Your task to perform on an android device: toggle priority inbox in the gmail app Image 0: 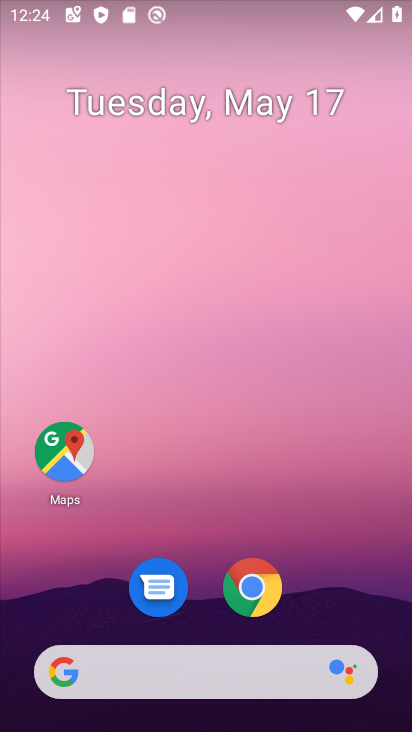
Step 0: drag from (211, 641) to (142, 8)
Your task to perform on an android device: toggle priority inbox in the gmail app Image 1: 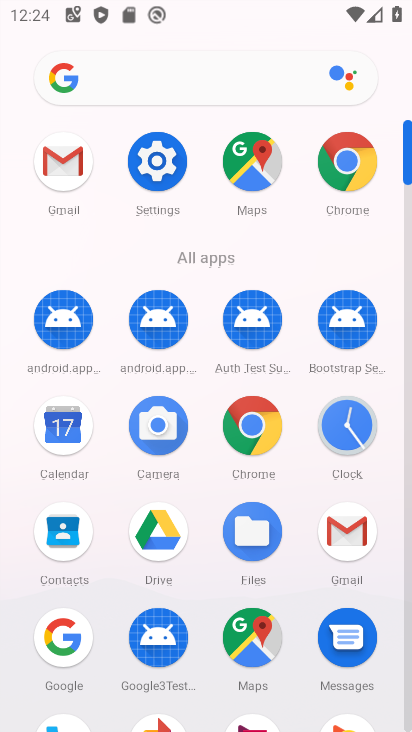
Step 1: click (331, 519)
Your task to perform on an android device: toggle priority inbox in the gmail app Image 2: 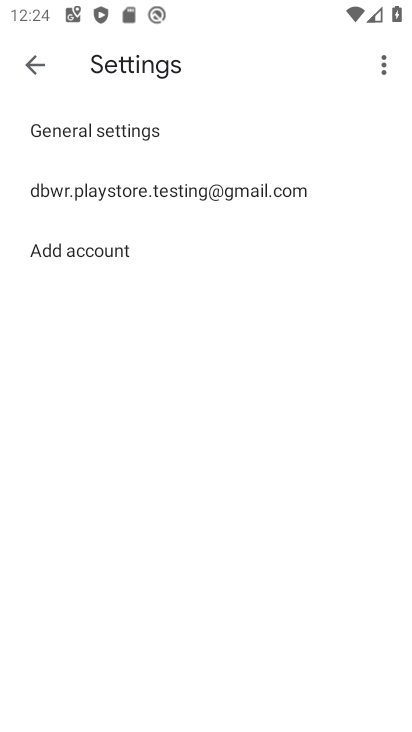
Step 2: click (50, 190)
Your task to perform on an android device: toggle priority inbox in the gmail app Image 3: 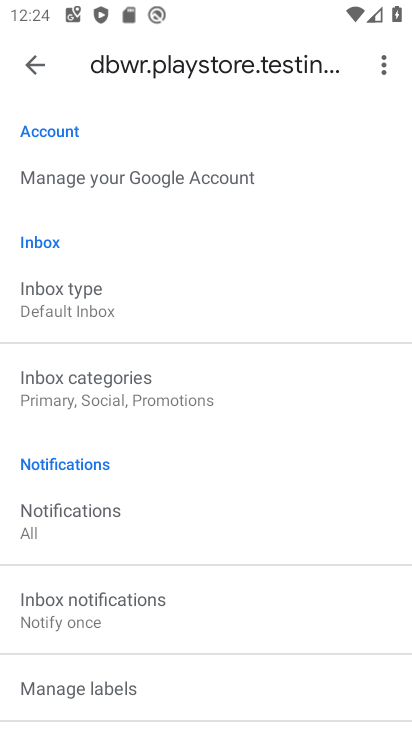
Step 3: click (159, 297)
Your task to perform on an android device: toggle priority inbox in the gmail app Image 4: 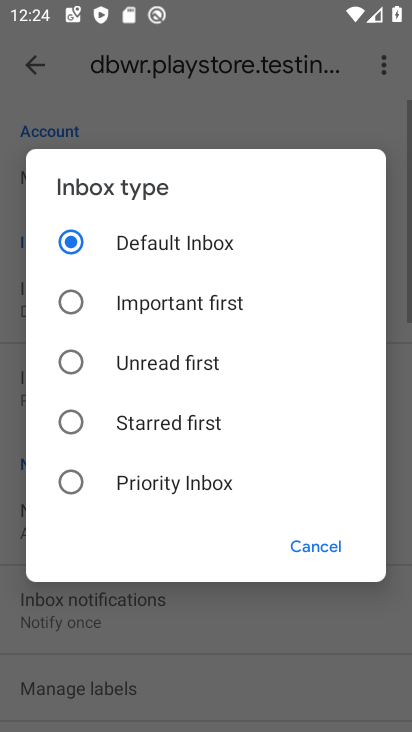
Step 4: click (139, 470)
Your task to perform on an android device: toggle priority inbox in the gmail app Image 5: 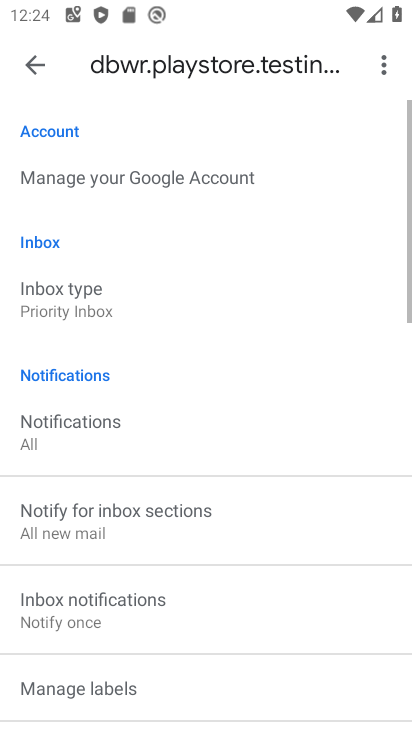
Step 5: task complete